Your task to perform on an android device: Open privacy settings Image 0: 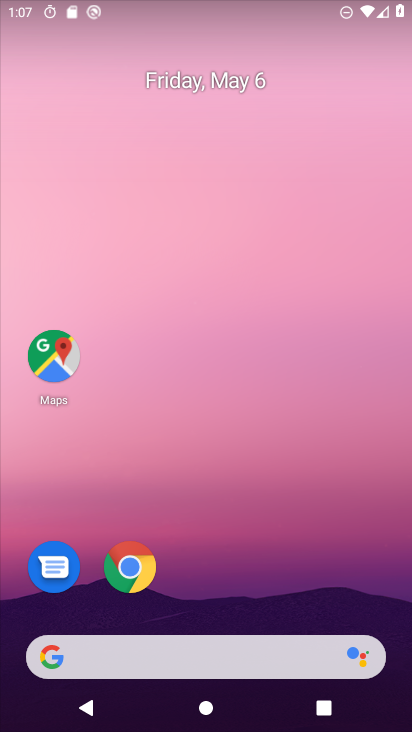
Step 0: drag from (264, 664) to (207, 154)
Your task to perform on an android device: Open privacy settings Image 1: 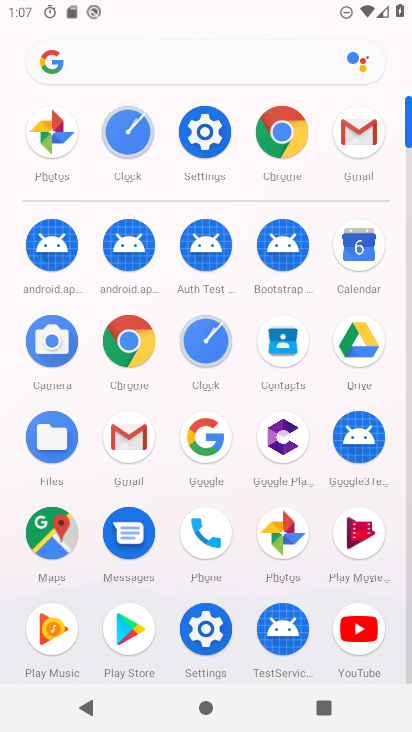
Step 1: click (202, 626)
Your task to perform on an android device: Open privacy settings Image 2: 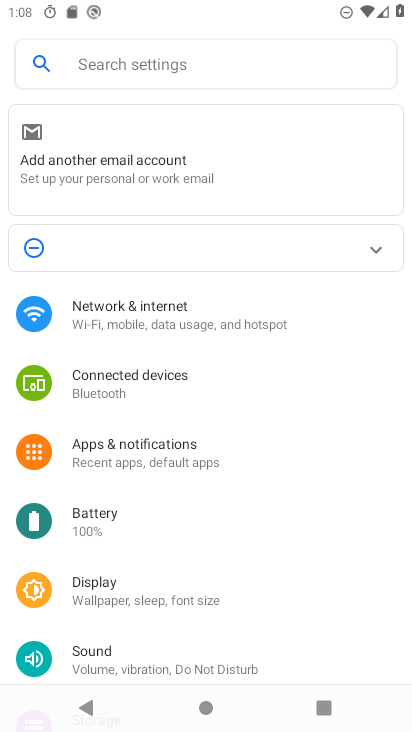
Step 2: click (136, 65)
Your task to perform on an android device: Open privacy settings Image 3: 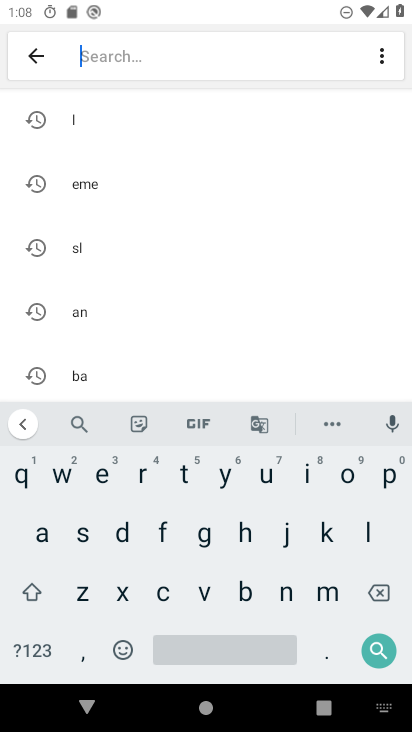
Step 3: click (380, 476)
Your task to perform on an android device: Open privacy settings Image 4: 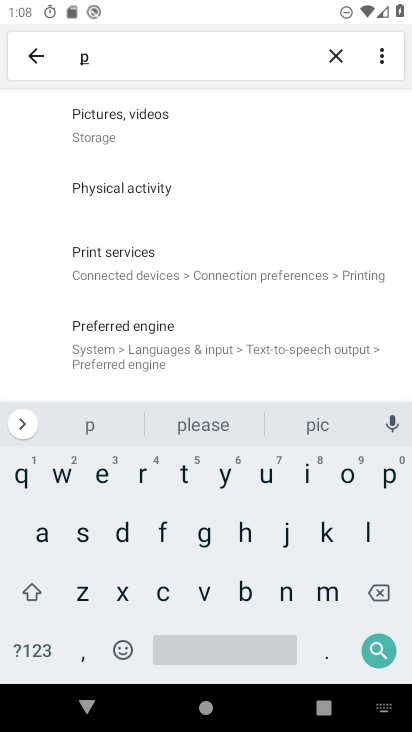
Step 4: click (140, 472)
Your task to perform on an android device: Open privacy settings Image 5: 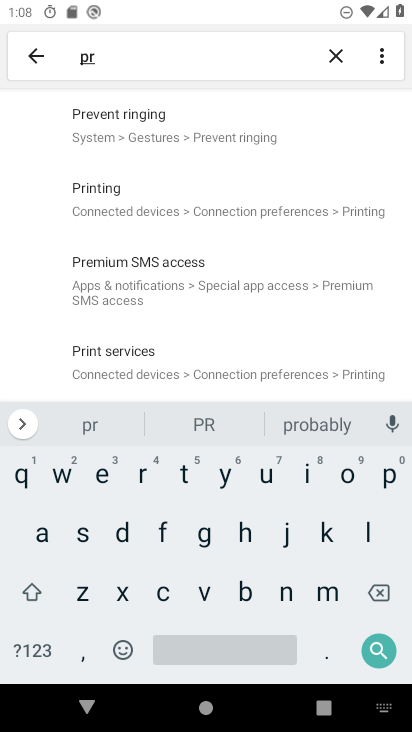
Step 5: click (304, 476)
Your task to perform on an android device: Open privacy settings Image 6: 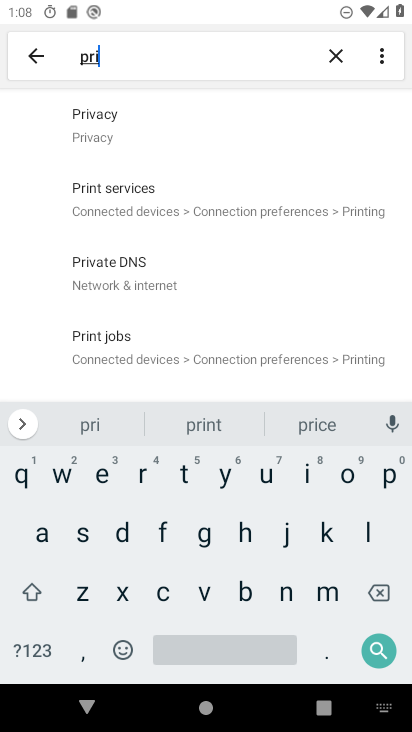
Step 6: click (130, 139)
Your task to perform on an android device: Open privacy settings Image 7: 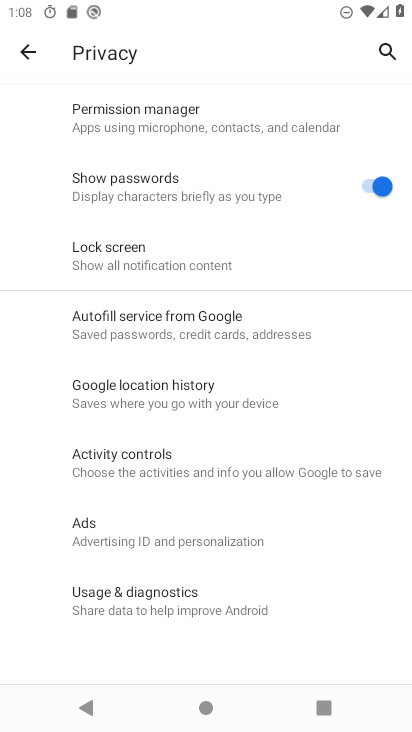
Step 7: task complete